Your task to perform on an android device: Go to calendar. Show me events next week Image 0: 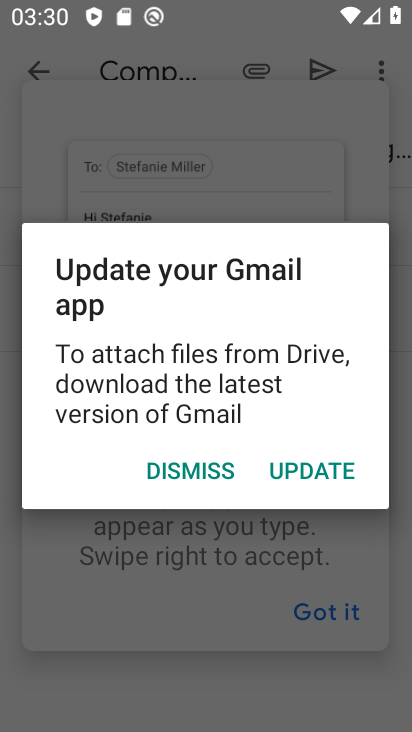
Step 0: press home button
Your task to perform on an android device: Go to calendar. Show me events next week Image 1: 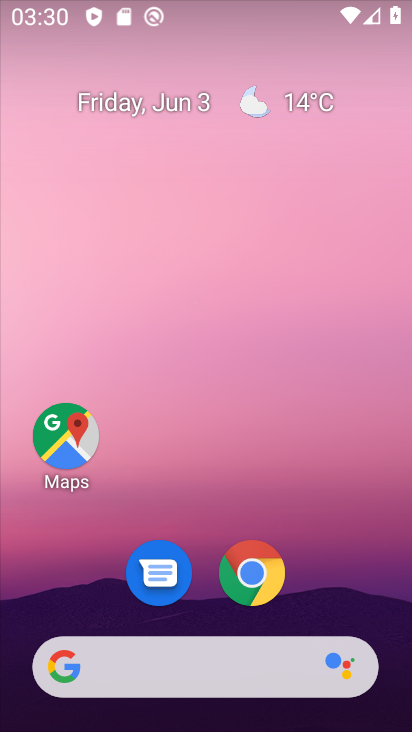
Step 1: drag from (168, 698) to (140, 99)
Your task to perform on an android device: Go to calendar. Show me events next week Image 2: 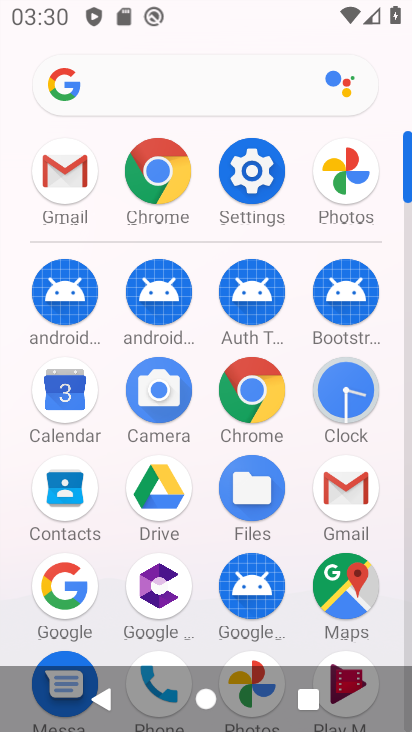
Step 2: click (57, 383)
Your task to perform on an android device: Go to calendar. Show me events next week Image 3: 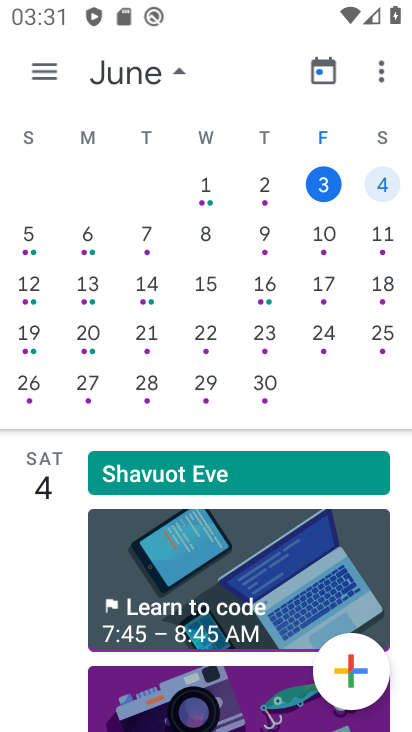
Step 3: click (211, 235)
Your task to perform on an android device: Go to calendar. Show me events next week Image 4: 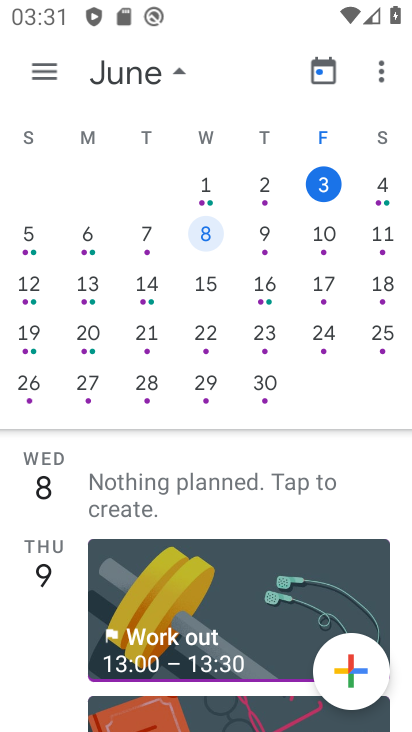
Step 4: click (44, 68)
Your task to perform on an android device: Go to calendar. Show me events next week Image 5: 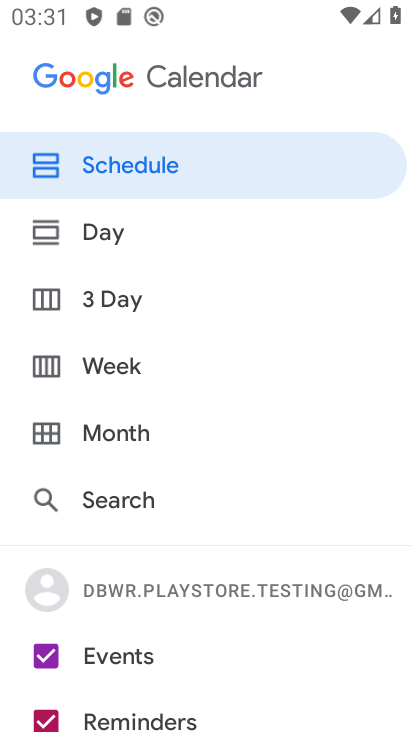
Step 5: click (105, 357)
Your task to perform on an android device: Go to calendar. Show me events next week Image 6: 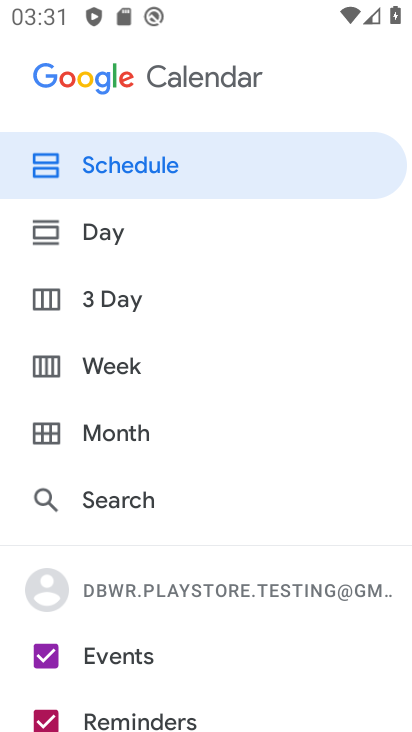
Step 6: click (120, 376)
Your task to perform on an android device: Go to calendar. Show me events next week Image 7: 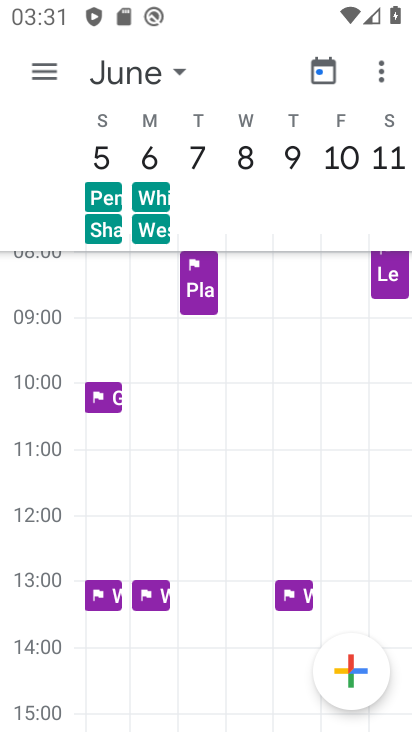
Step 7: task complete